Your task to perform on an android device: Search for sushi restaurants on Maps Image 0: 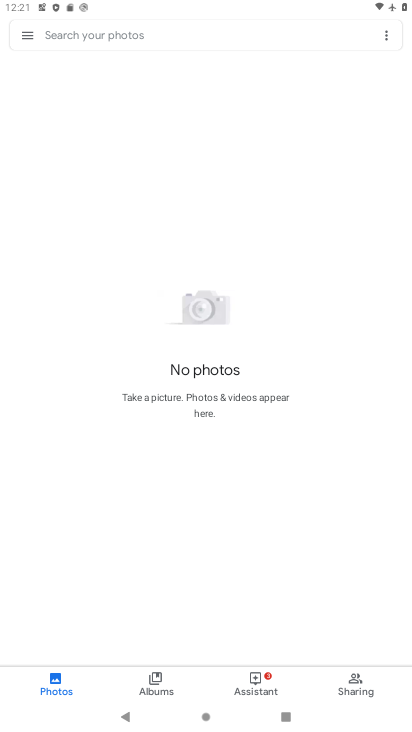
Step 0: click (173, 42)
Your task to perform on an android device: Search for sushi restaurants on Maps Image 1: 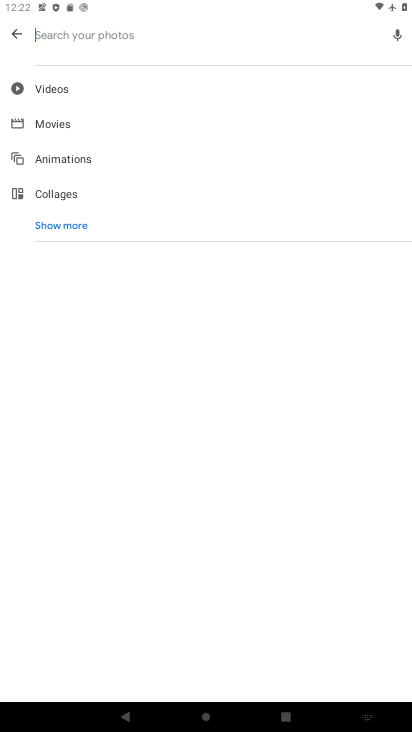
Step 1: task complete